Your task to perform on an android device: make emails show in primary in the gmail app Image 0: 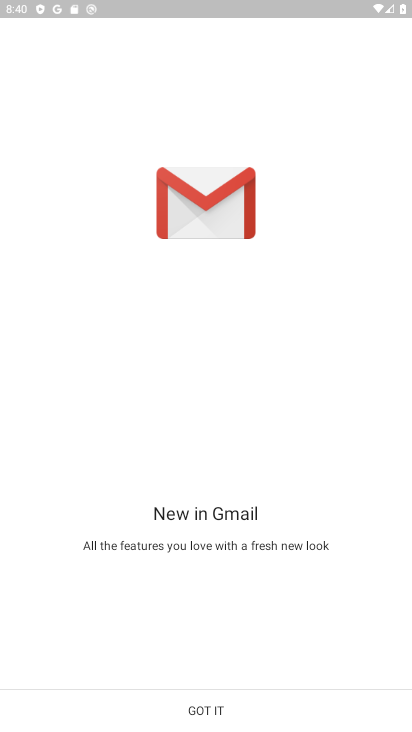
Step 0: press home button
Your task to perform on an android device: make emails show in primary in the gmail app Image 1: 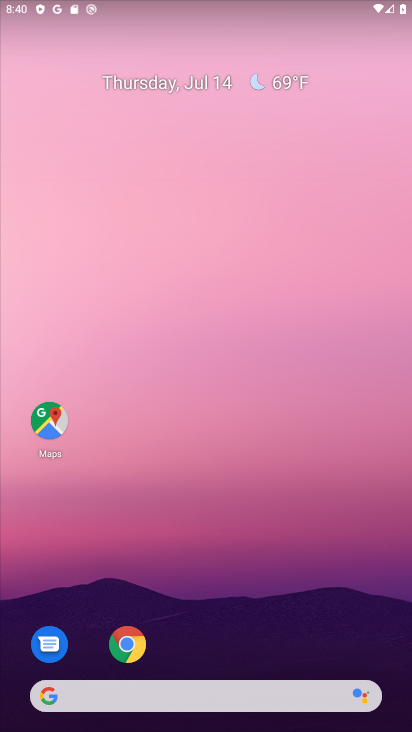
Step 1: drag from (210, 659) to (186, 49)
Your task to perform on an android device: make emails show in primary in the gmail app Image 2: 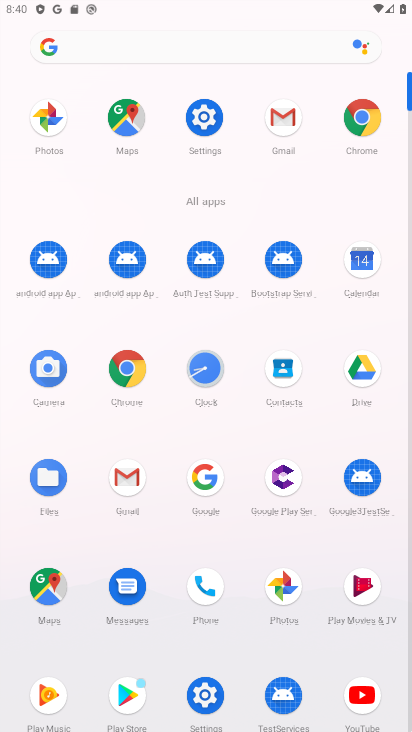
Step 2: click (282, 124)
Your task to perform on an android device: make emails show in primary in the gmail app Image 3: 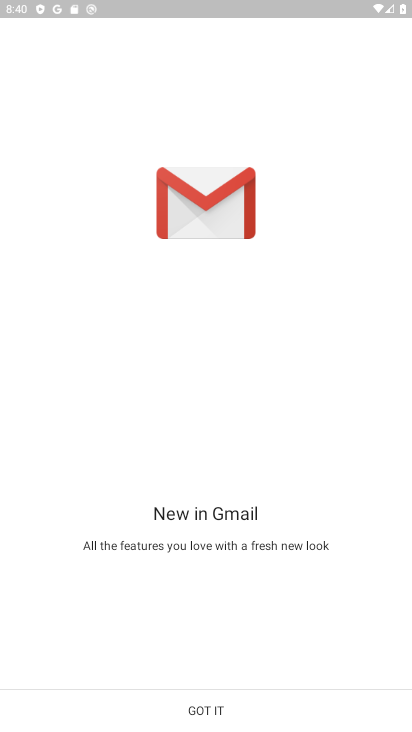
Step 3: click (230, 721)
Your task to perform on an android device: make emails show in primary in the gmail app Image 4: 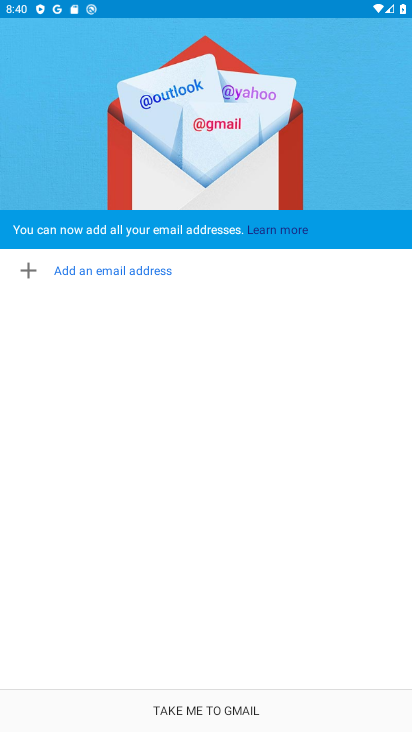
Step 4: click (230, 721)
Your task to perform on an android device: make emails show in primary in the gmail app Image 5: 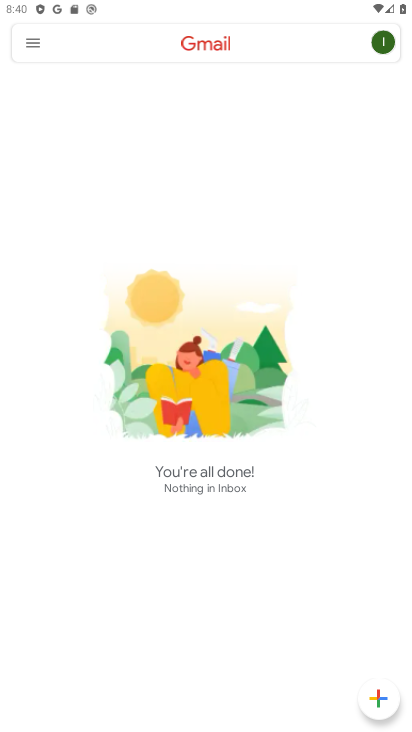
Step 5: click (43, 51)
Your task to perform on an android device: make emails show in primary in the gmail app Image 6: 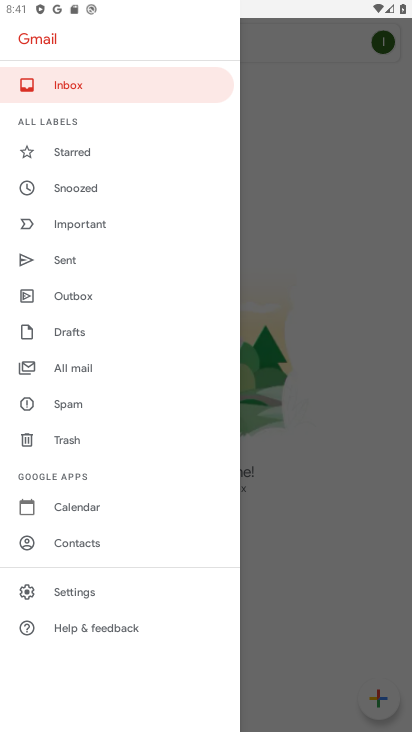
Step 6: task complete